Your task to perform on an android device: Find coffee shops on Maps Image 0: 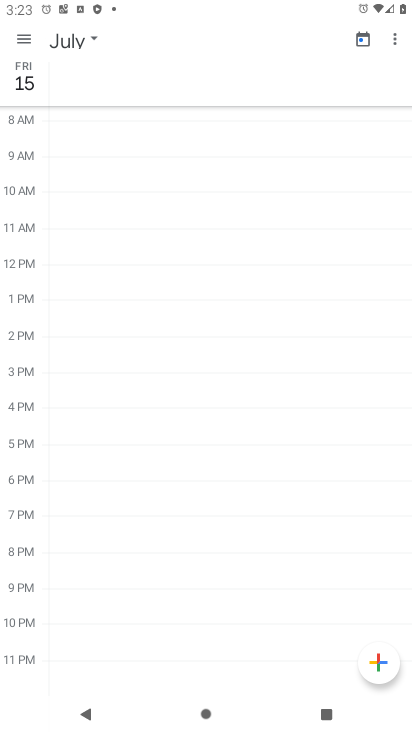
Step 0: press home button
Your task to perform on an android device: Find coffee shops on Maps Image 1: 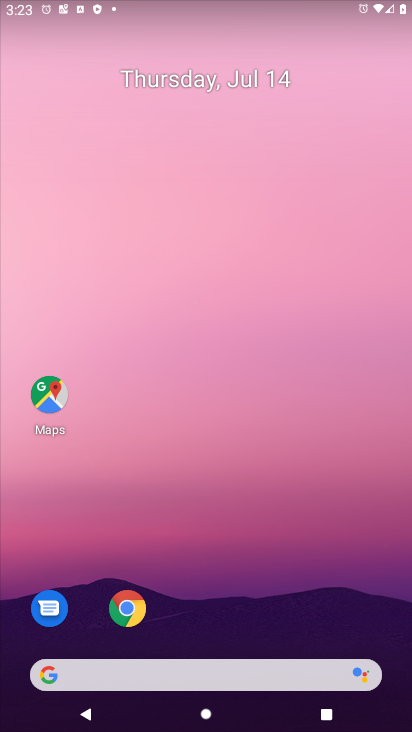
Step 1: click (49, 391)
Your task to perform on an android device: Find coffee shops on Maps Image 2: 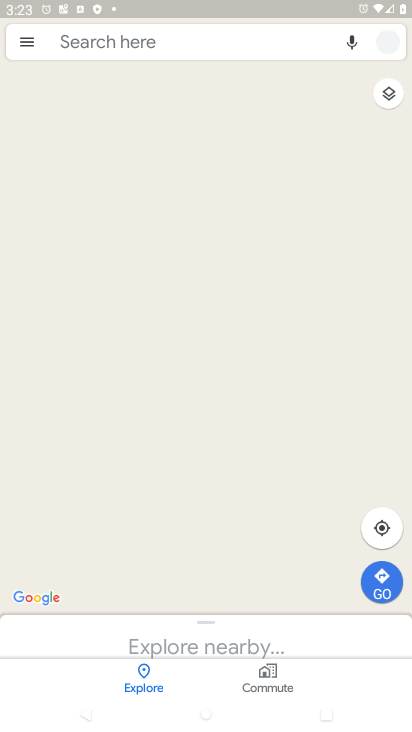
Step 2: click (132, 41)
Your task to perform on an android device: Find coffee shops on Maps Image 3: 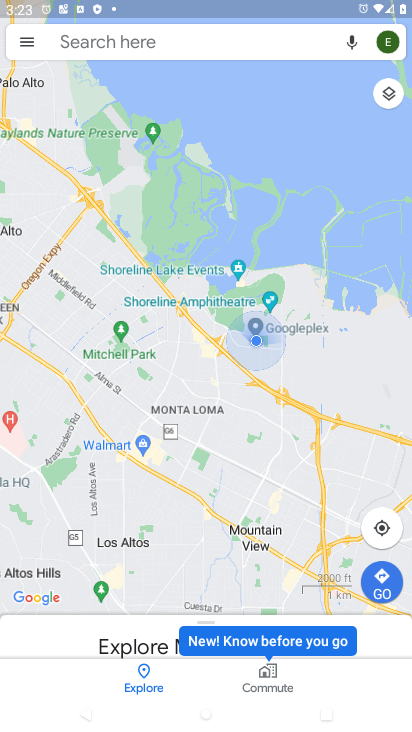
Step 3: click (96, 39)
Your task to perform on an android device: Find coffee shops on Maps Image 4: 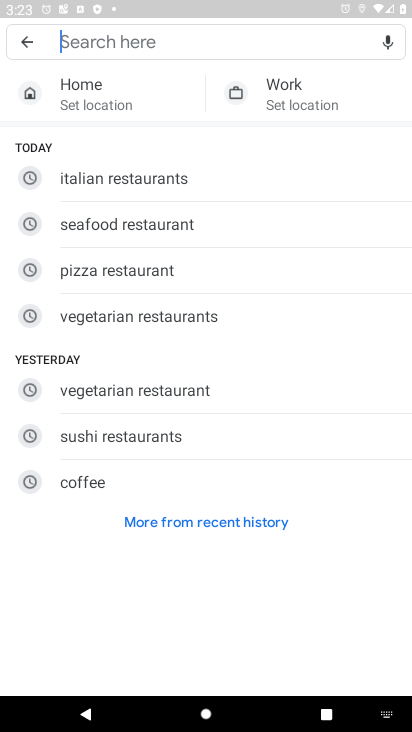
Step 4: type "coffee shops"
Your task to perform on an android device: Find coffee shops on Maps Image 5: 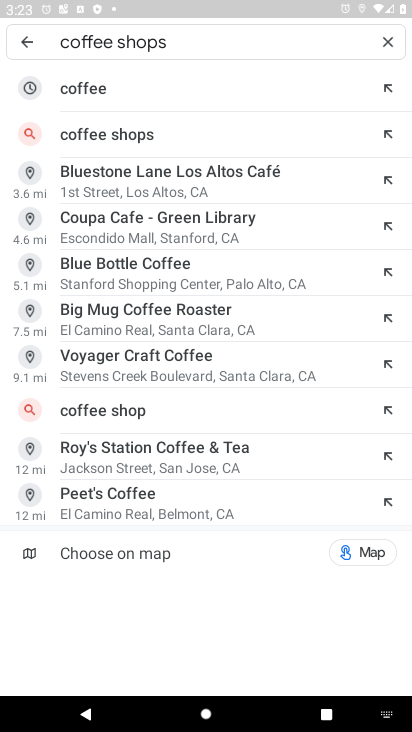
Step 5: click (125, 133)
Your task to perform on an android device: Find coffee shops on Maps Image 6: 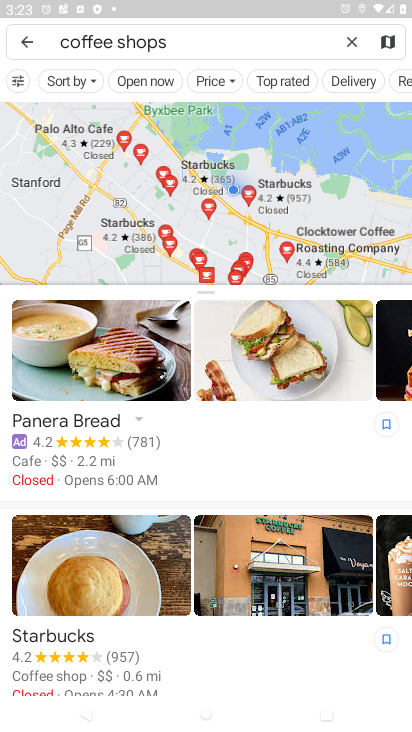
Step 6: task complete